Your task to perform on an android device: turn smart compose on in the gmail app Image 0: 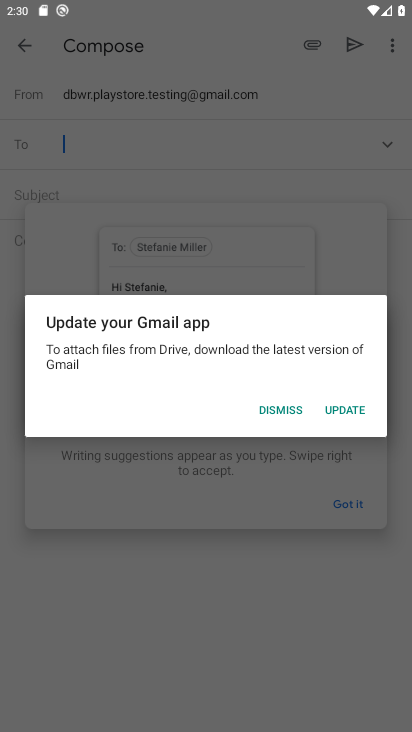
Step 0: press home button
Your task to perform on an android device: turn smart compose on in the gmail app Image 1: 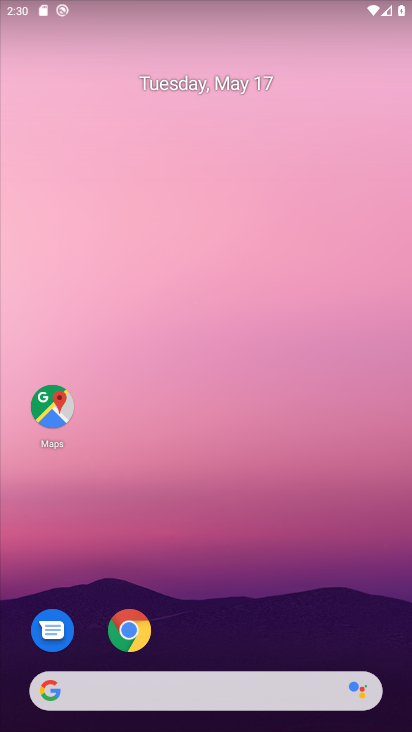
Step 1: drag from (238, 629) to (253, 89)
Your task to perform on an android device: turn smart compose on in the gmail app Image 2: 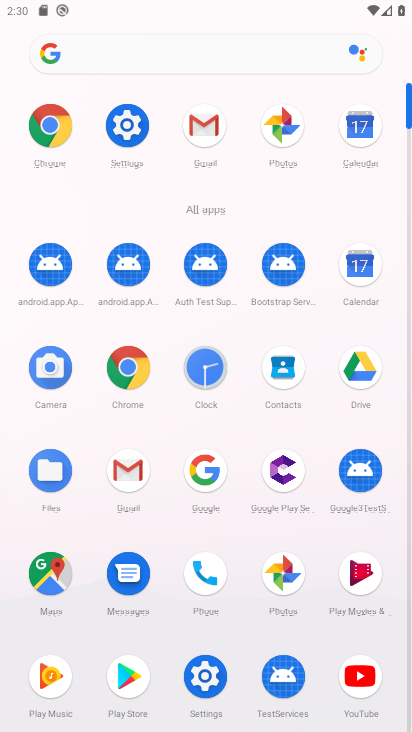
Step 2: click (197, 129)
Your task to perform on an android device: turn smart compose on in the gmail app Image 3: 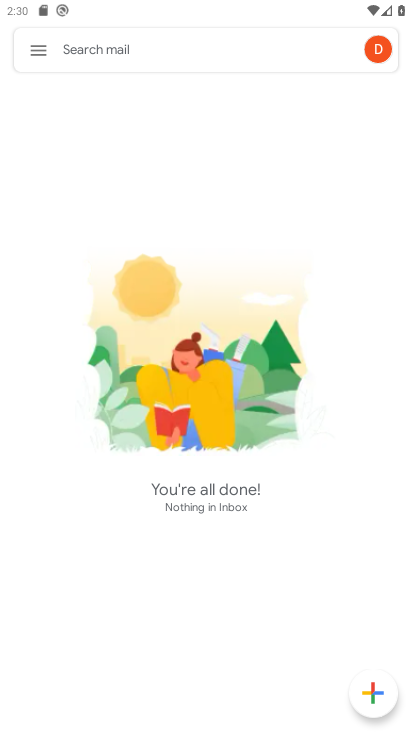
Step 3: click (35, 45)
Your task to perform on an android device: turn smart compose on in the gmail app Image 4: 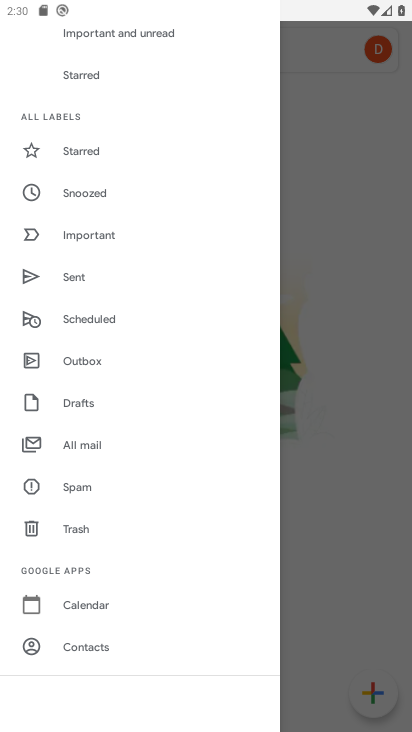
Step 4: drag from (103, 582) to (125, 330)
Your task to perform on an android device: turn smart compose on in the gmail app Image 5: 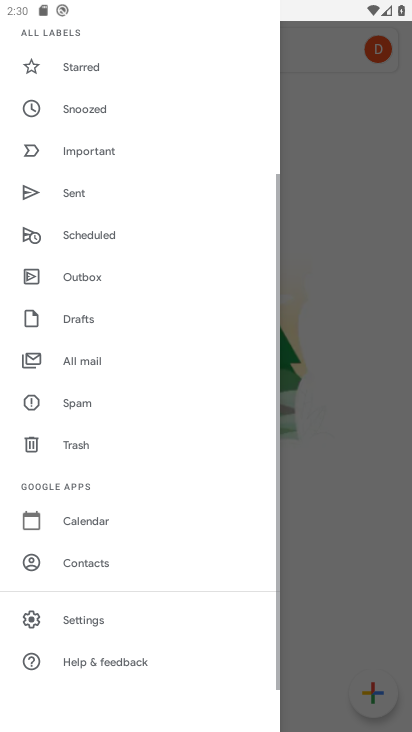
Step 5: click (58, 613)
Your task to perform on an android device: turn smart compose on in the gmail app Image 6: 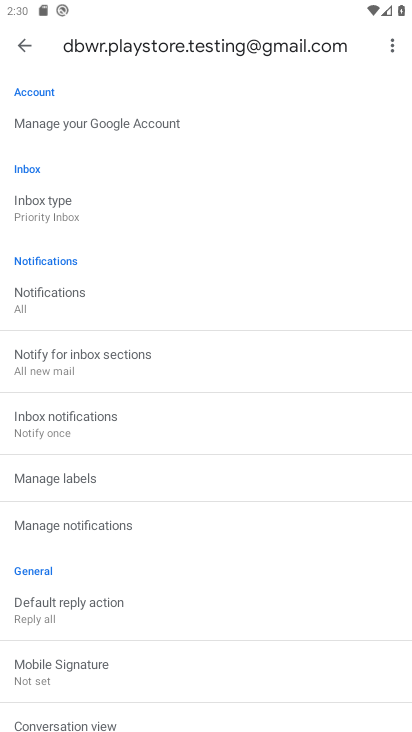
Step 6: task complete